Your task to perform on an android device: search for starred emails in the gmail app Image 0: 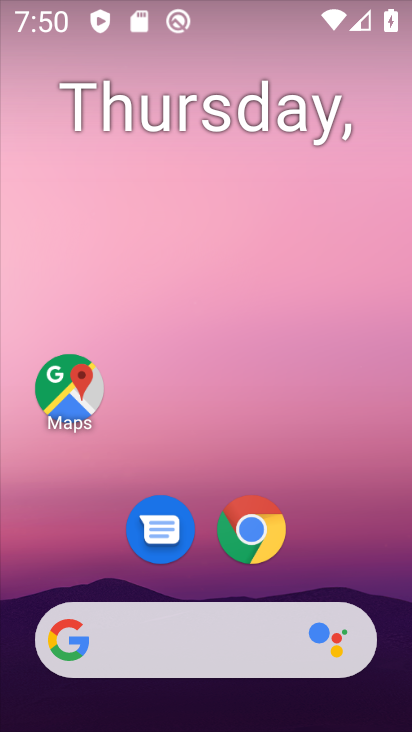
Step 0: drag from (305, 686) to (177, 4)
Your task to perform on an android device: search for starred emails in the gmail app Image 1: 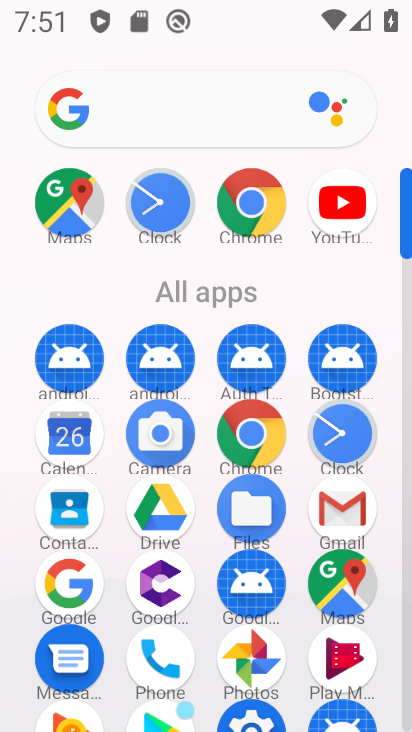
Step 1: click (349, 505)
Your task to perform on an android device: search for starred emails in the gmail app Image 2: 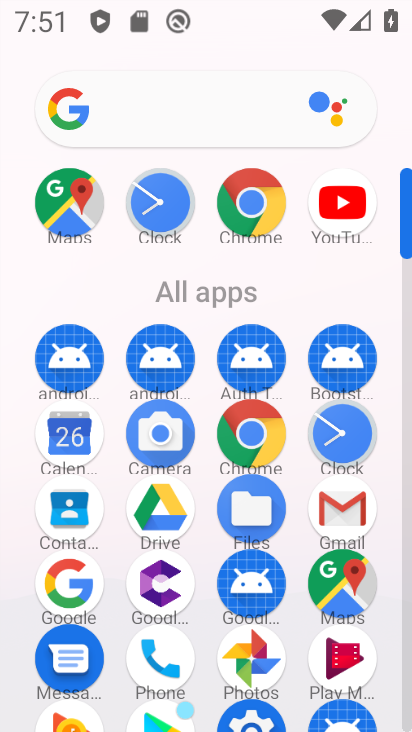
Step 2: click (349, 505)
Your task to perform on an android device: search for starred emails in the gmail app Image 3: 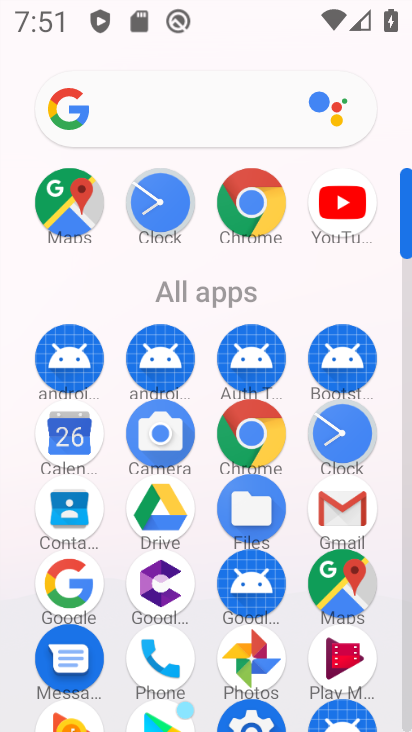
Step 3: click (349, 505)
Your task to perform on an android device: search for starred emails in the gmail app Image 4: 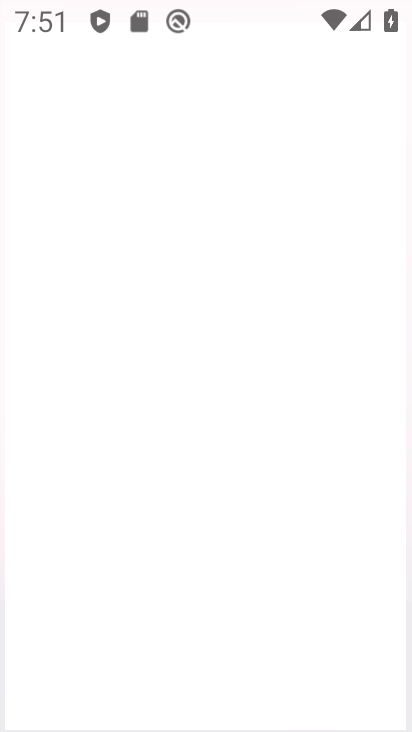
Step 4: click (348, 506)
Your task to perform on an android device: search for starred emails in the gmail app Image 5: 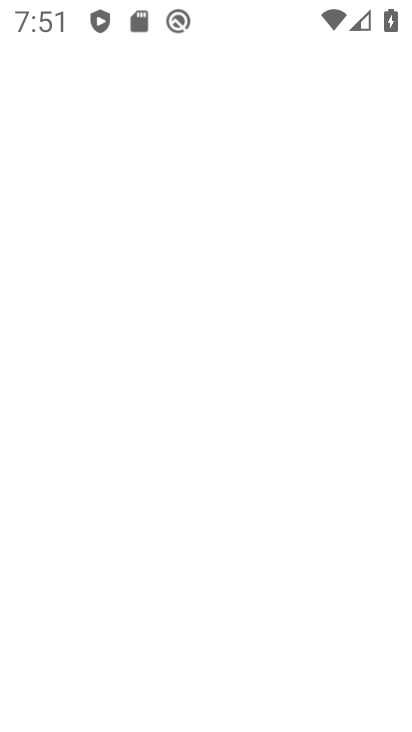
Step 5: click (348, 506)
Your task to perform on an android device: search for starred emails in the gmail app Image 6: 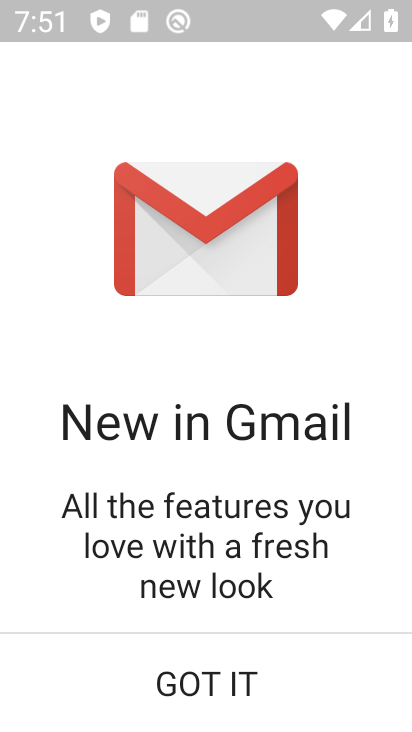
Step 6: click (226, 671)
Your task to perform on an android device: search for starred emails in the gmail app Image 7: 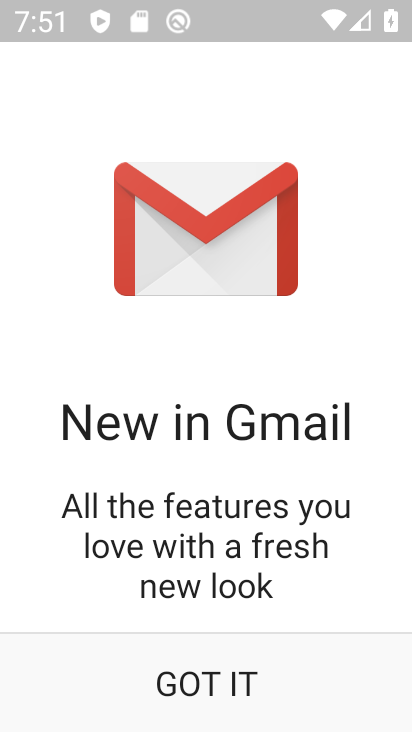
Step 7: click (216, 676)
Your task to perform on an android device: search for starred emails in the gmail app Image 8: 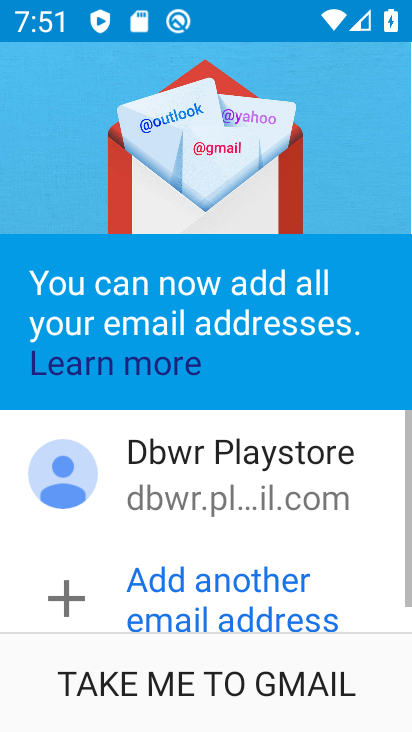
Step 8: click (217, 676)
Your task to perform on an android device: search for starred emails in the gmail app Image 9: 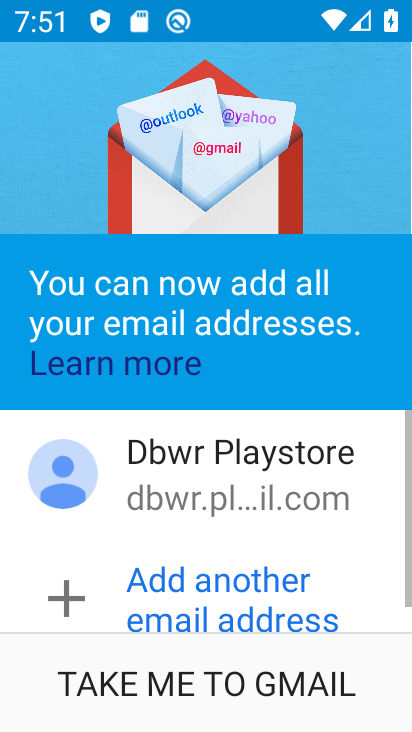
Step 9: click (217, 676)
Your task to perform on an android device: search for starred emails in the gmail app Image 10: 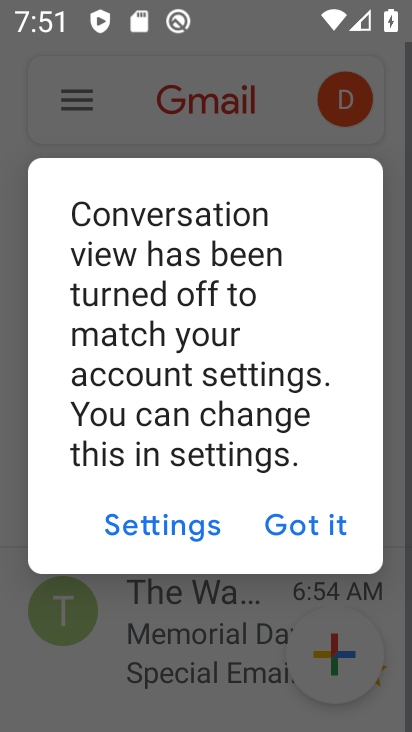
Step 10: drag from (311, 520) to (277, 542)
Your task to perform on an android device: search for starred emails in the gmail app Image 11: 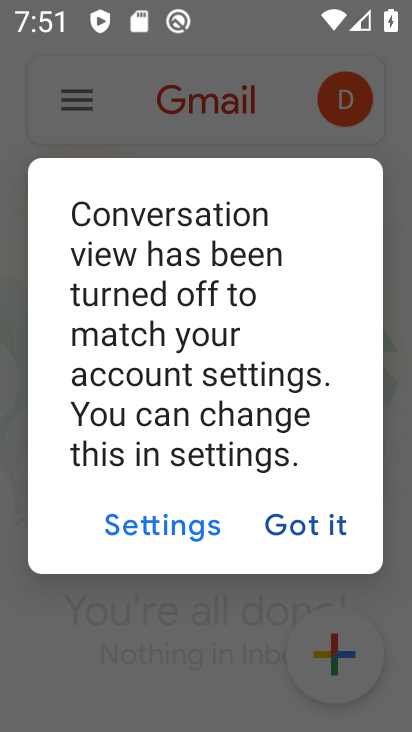
Step 11: click (290, 530)
Your task to perform on an android device: search for starred emails in the gmail app Image 12: 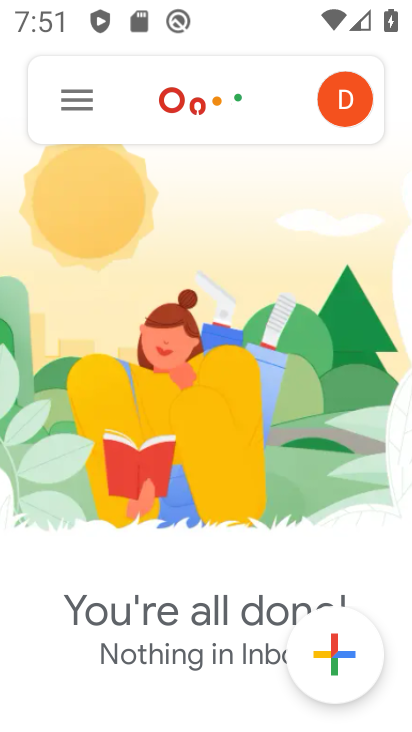
Step 12: click (300, 525)
Your task to perform on an android device: search for starred emails in the gmail app Image 13: 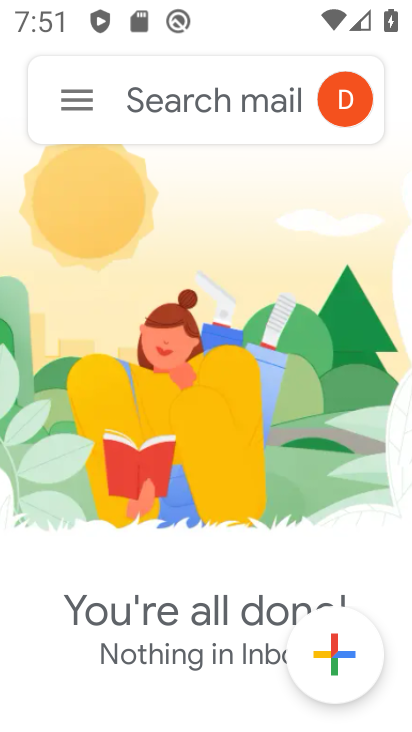
Step 13: drag from (83, 98) to (83, 238)
Your task to perform on an android device: search for starred emails in the gmail app Image 14: 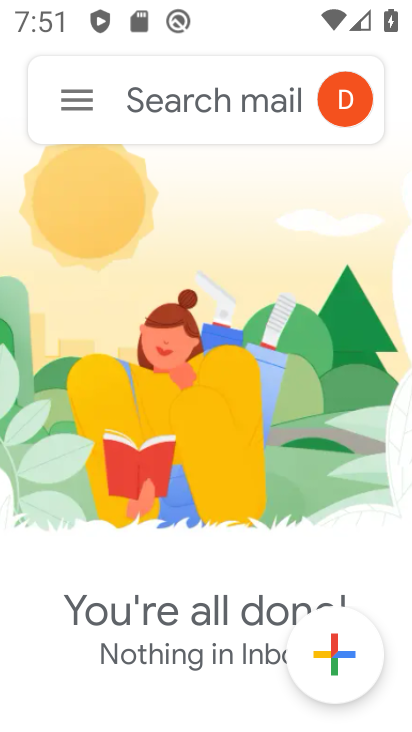
Step 14: click (78, 101)
Your task to perform on an android device: search for starred emails in the gmail app Image 15: 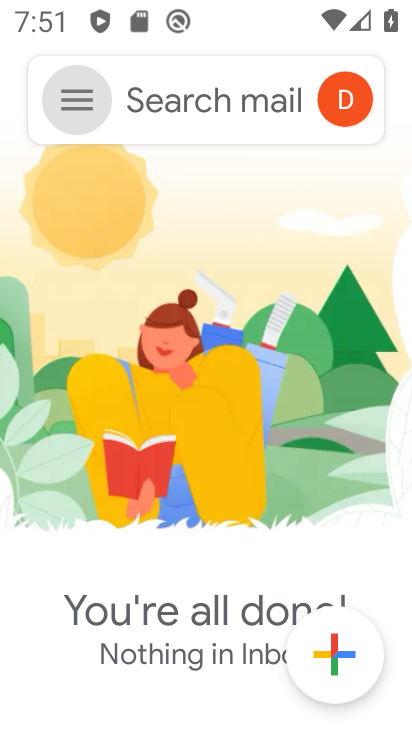
Step 15: drag from (87, 97) to (403, 475)
Your task to perform on an android device: search for starred emails in the gmail app Image 16: 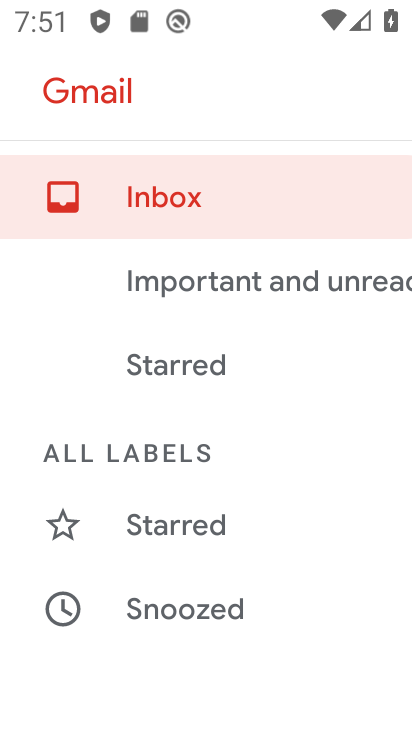
Step 16: click (157, 525)
Your task to perform on an android device: search for starred emails in the gmail app Image 17: 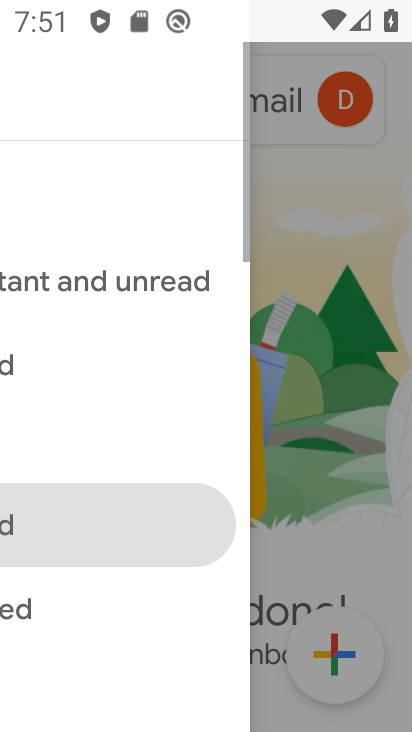
Step 17: click (157, 523)
Your task to perform on an android device: search for starred emails in the gmail app Image 18: 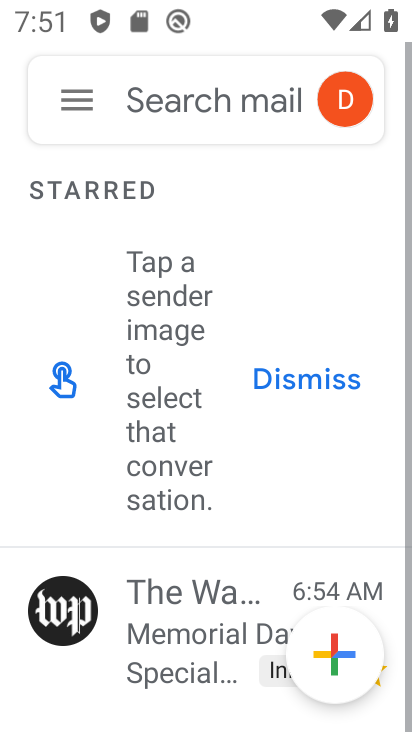
Step 18: click (166, 507)
Your task to perform on an android device: search for starred emails in the gmail app Image 19: 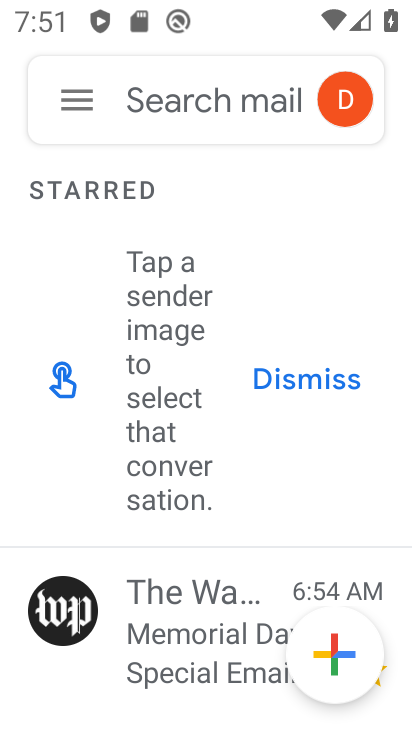
Step 19: task complete